Your task to perform on an android device: Open Google Maps and go to "Timeline" Image 0: 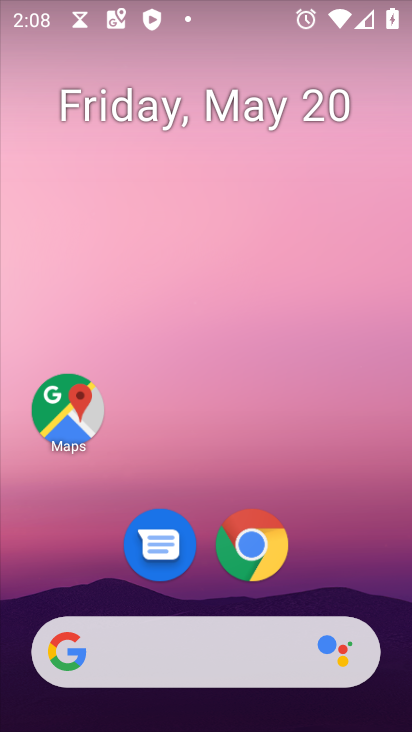
Step 0: click (90, 414)
Your task to perform on an android device: Open Google Maps and go to "Timeline" Image 1: 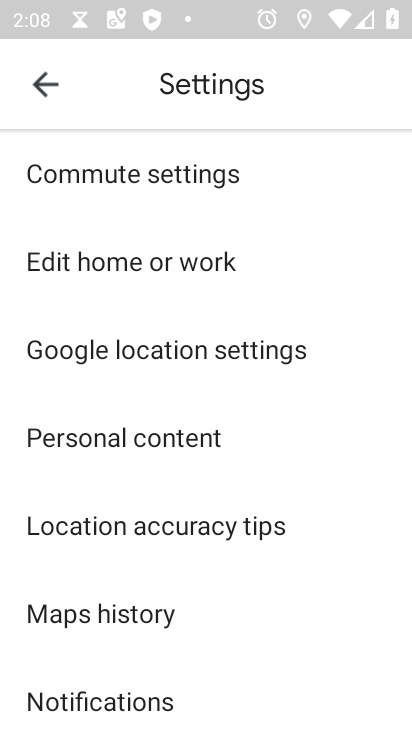
Step 1: click (48, 87)
Your task to perform on an android device: Open Google Maps and go to "Timeline" Image 2: 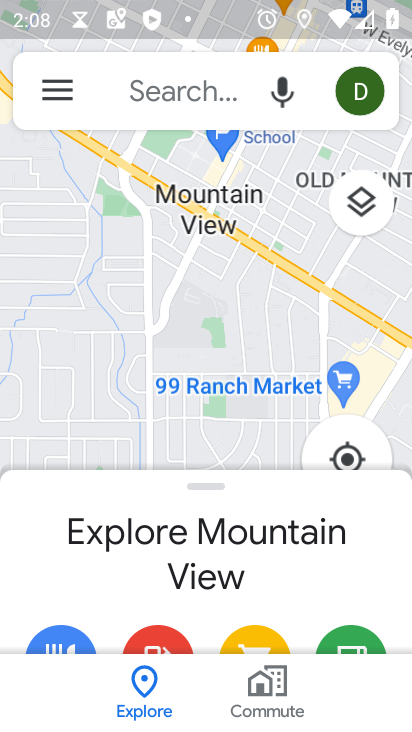
Step 2: click (61, 101)
Your task to perform on an android device: Open Google Maps and go to "Timeline" Image 3: 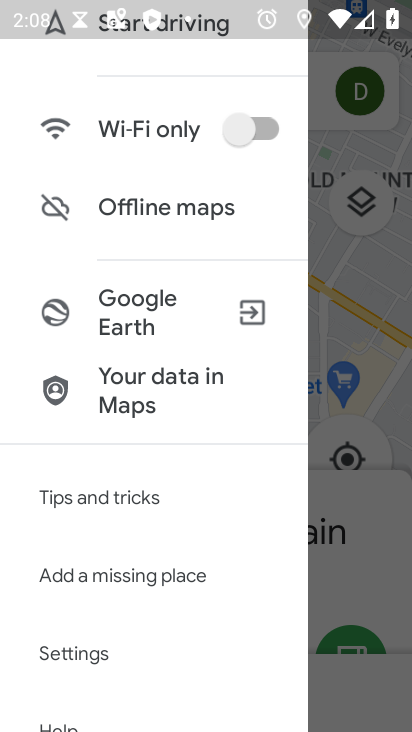
Step 3: drag from (154, 132) to (151, 649)
Your task to perform on an android device: Open Google Maps and go to "Timeline" Image 4: 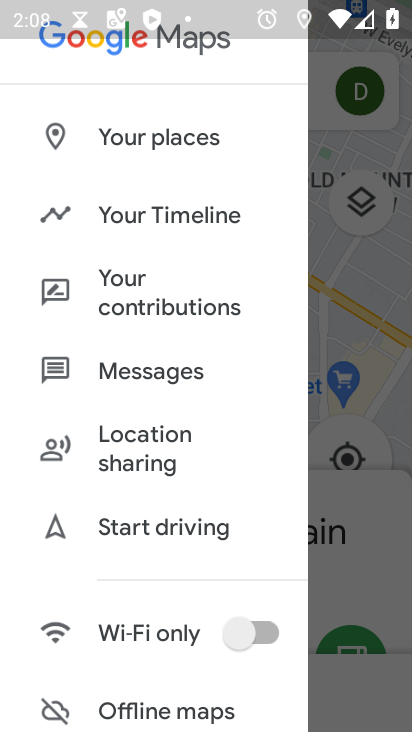
Step 4: click (160, 211)
Your task to perform on an android device: Open Google Maps and go to "Timeline" Image 5: 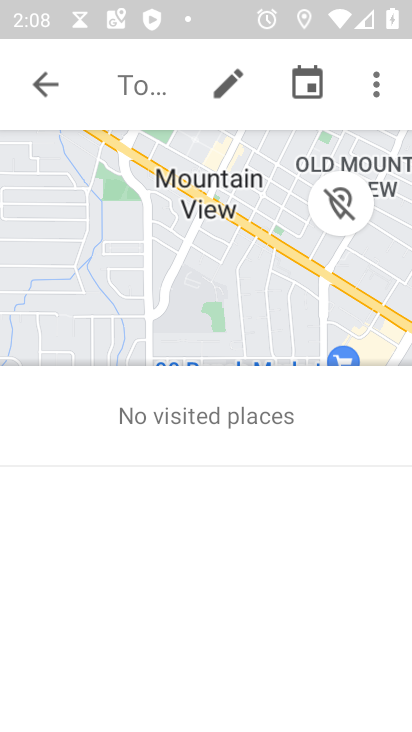
Step 5: task complete